Your task to perform on an android device: search for starred emails in the gmail app Image 0: 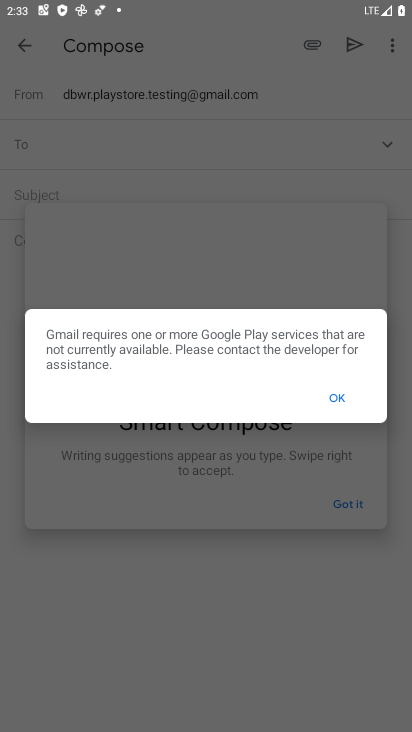
Step 0: press home button
Your task to perform on an android device: search for starred emails in the gmail app Image 1: 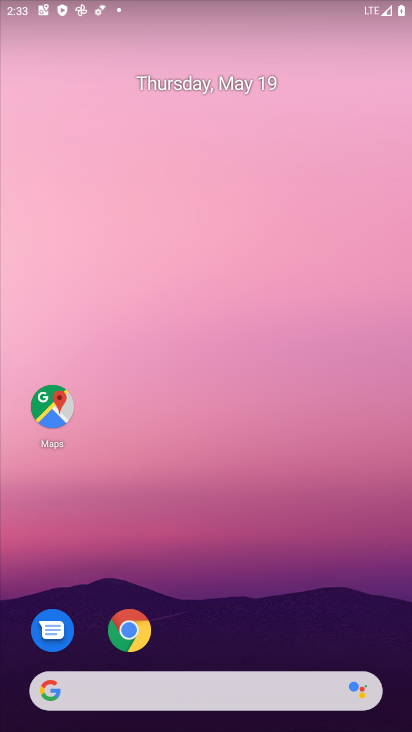
Step 1: drag from (380, 632) to (282, 34)
Your task to perform on an android device: search for starred emails in the gmail app Image 2: 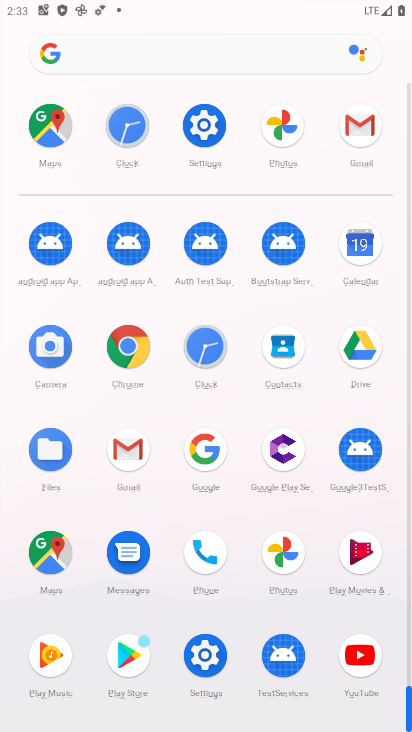
Step 2: click (128, 447)
Your task to perform on an android device: search for starred emails in the gmail app Image 3: 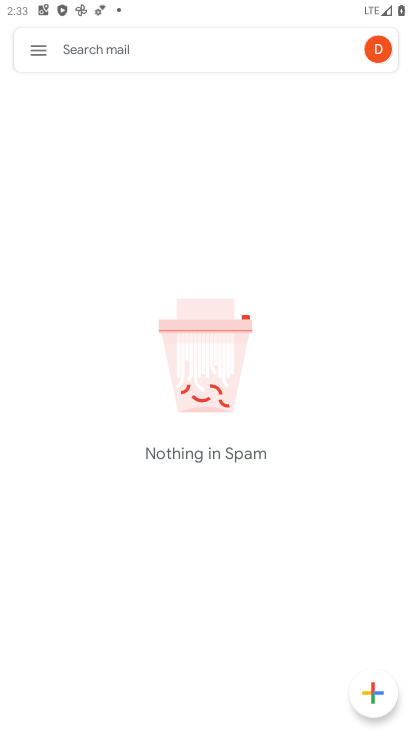
Step 3: click (37, 50)
Your task to perform on an android device: search for starred emails in the gmail app Image 4: 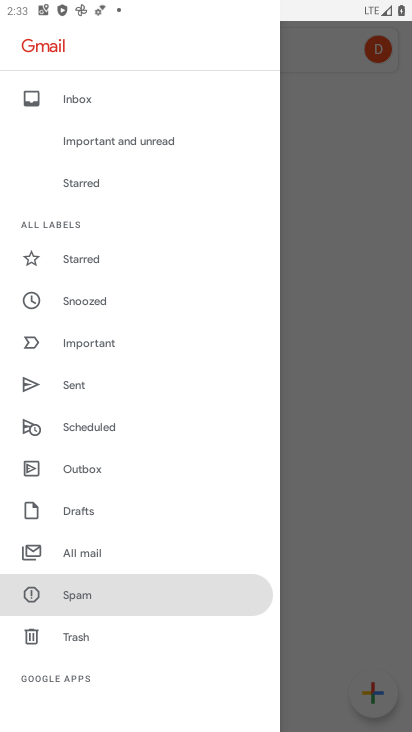
Step 4: click (81, 259)
Your task to perform on an android device: search for starred emails in the gmail app Image 5: 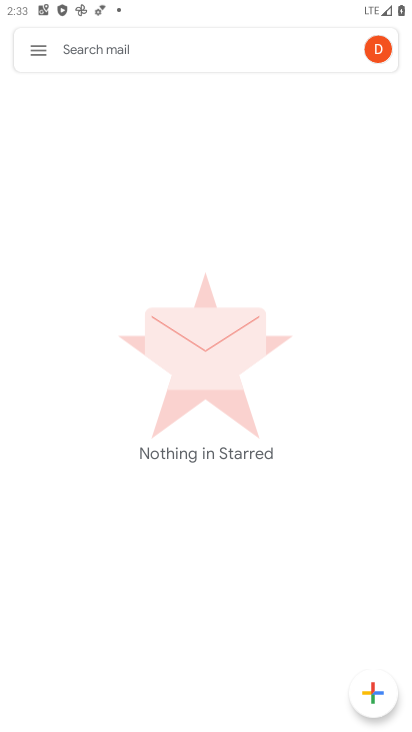
Step 5: task complete